Your task to perform on an android device: open app "DuckDuckGo Privacy Browser" (install if not already installed) Image 0: 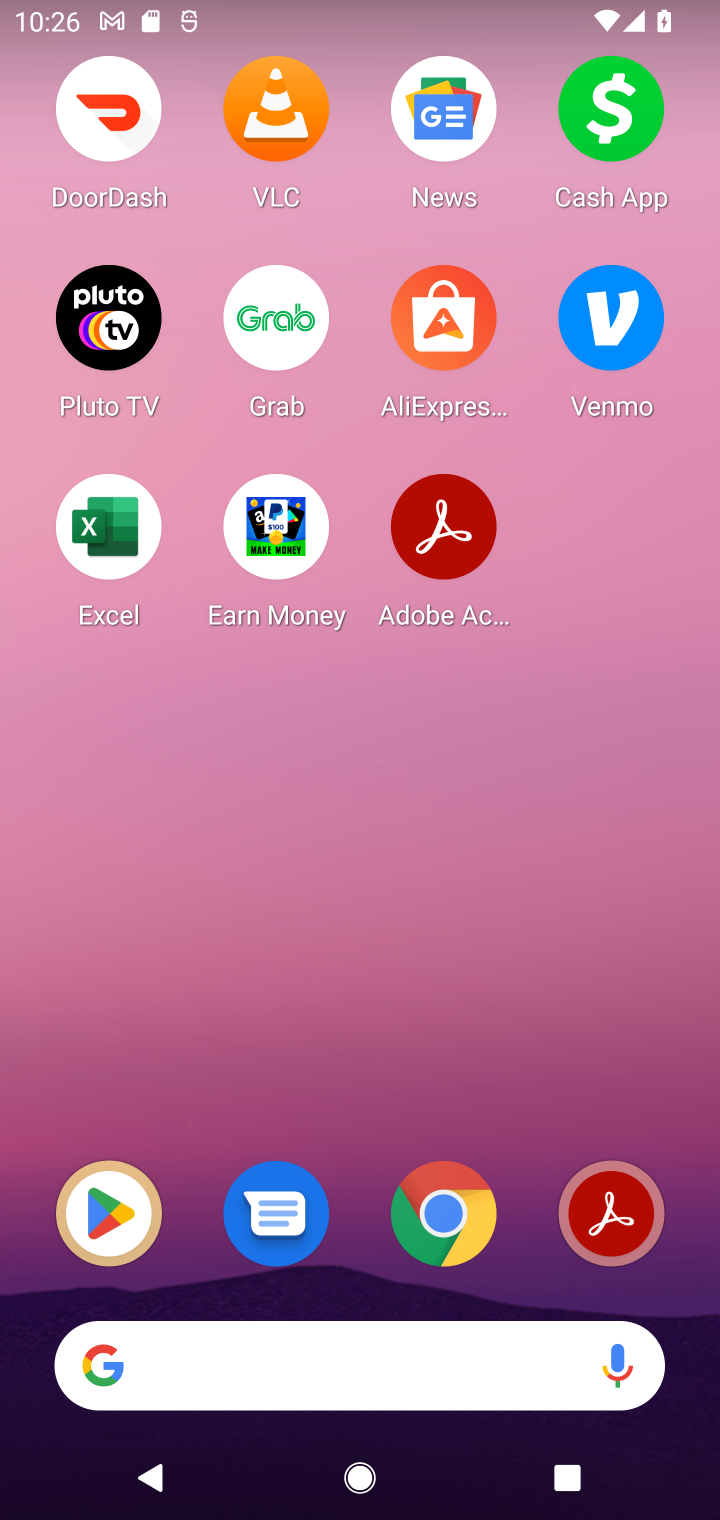
Step 0: click (81, 1222)
Your task to perform on an android device: open app "DuckDuckGo Privacy Browser" (install if not already installed) Image 1: 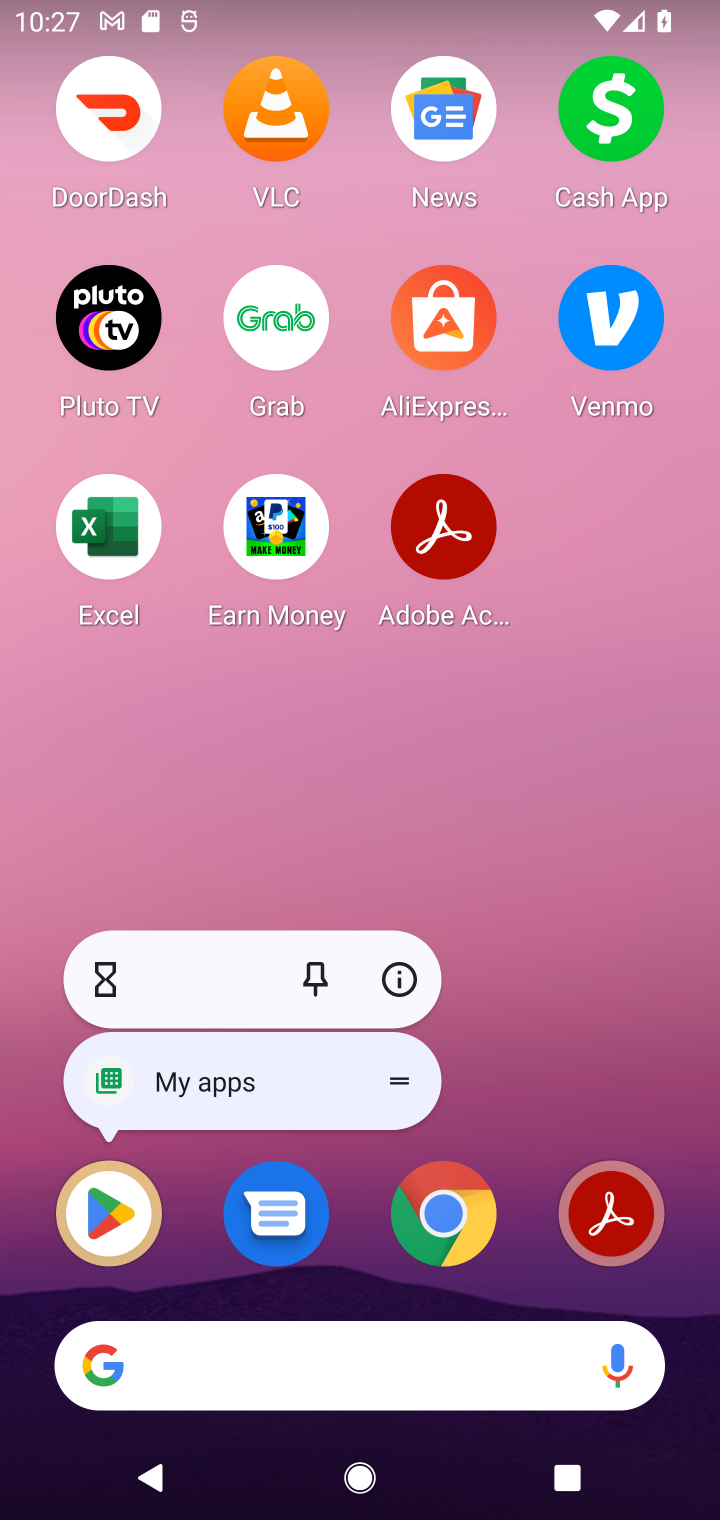
Step 1: click (129, 1195)
Your task to perform on an android device: open app "DuckDuckGo Privacy Browser" (install if not already installed) Image 2: 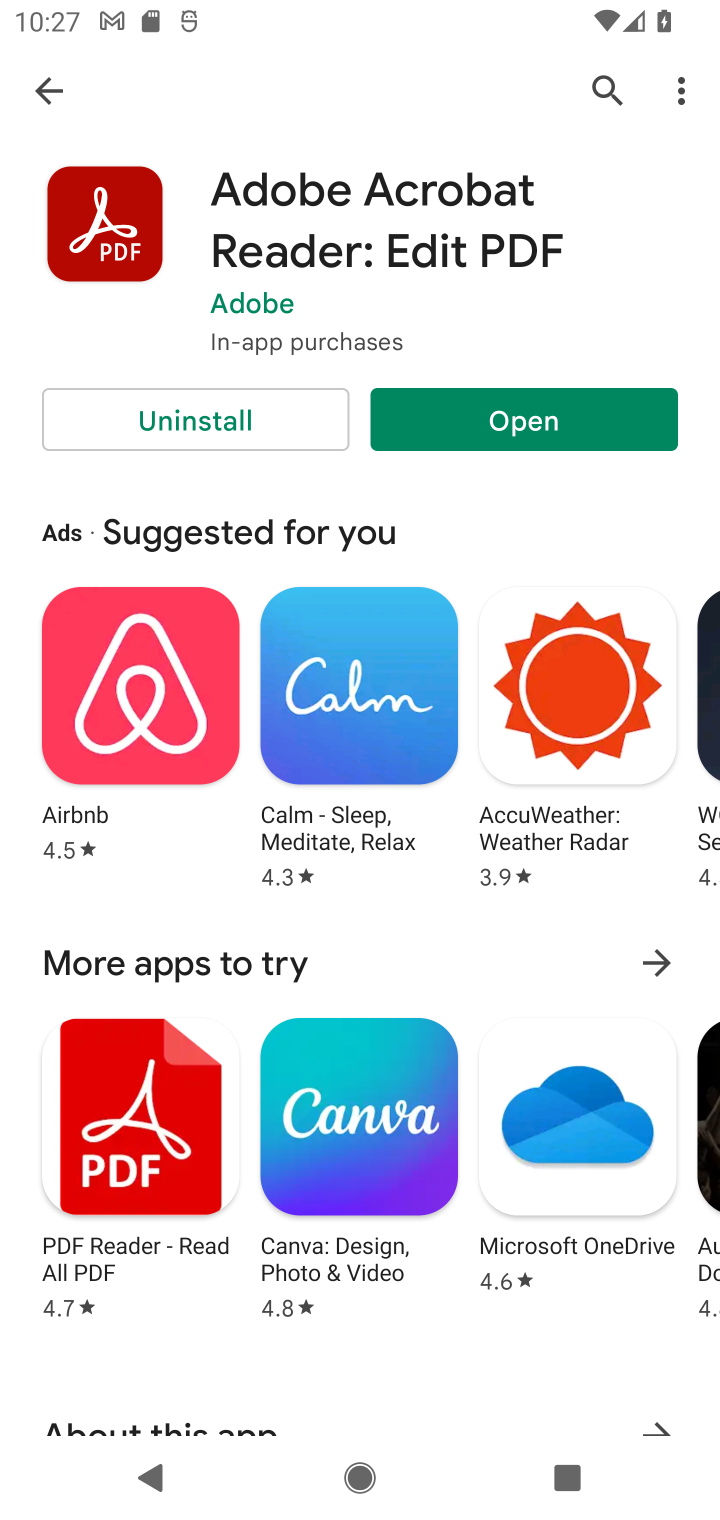
Step 2: click (114, 1211)
Your task to perform on an android device: open app "DuckDuckGo Privacy Browser" (install if not already installed) Image 3: 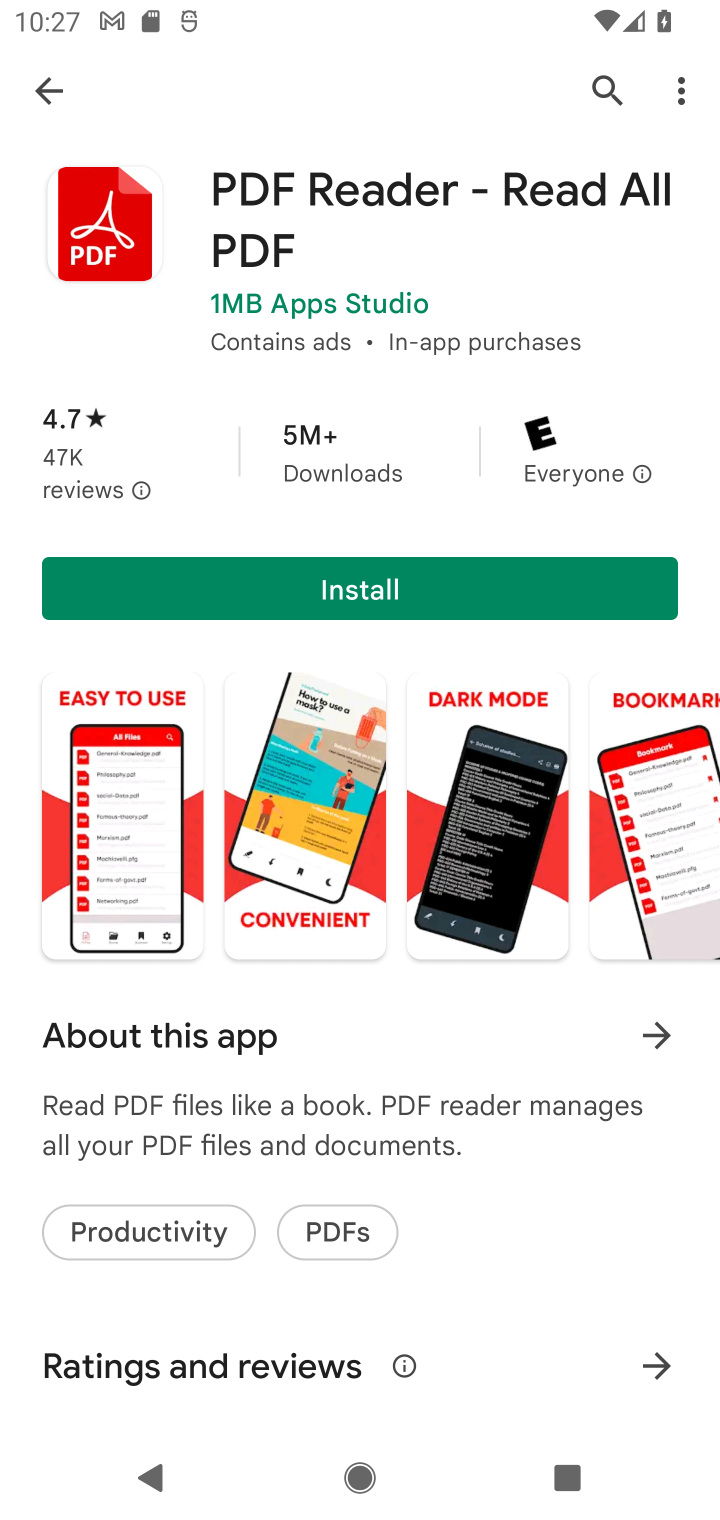
Step 3: click (54, 88)
Your task to perform on an android device: open app "DuckDuckGo Privacy Browser" (install if not already installed) Image 4: 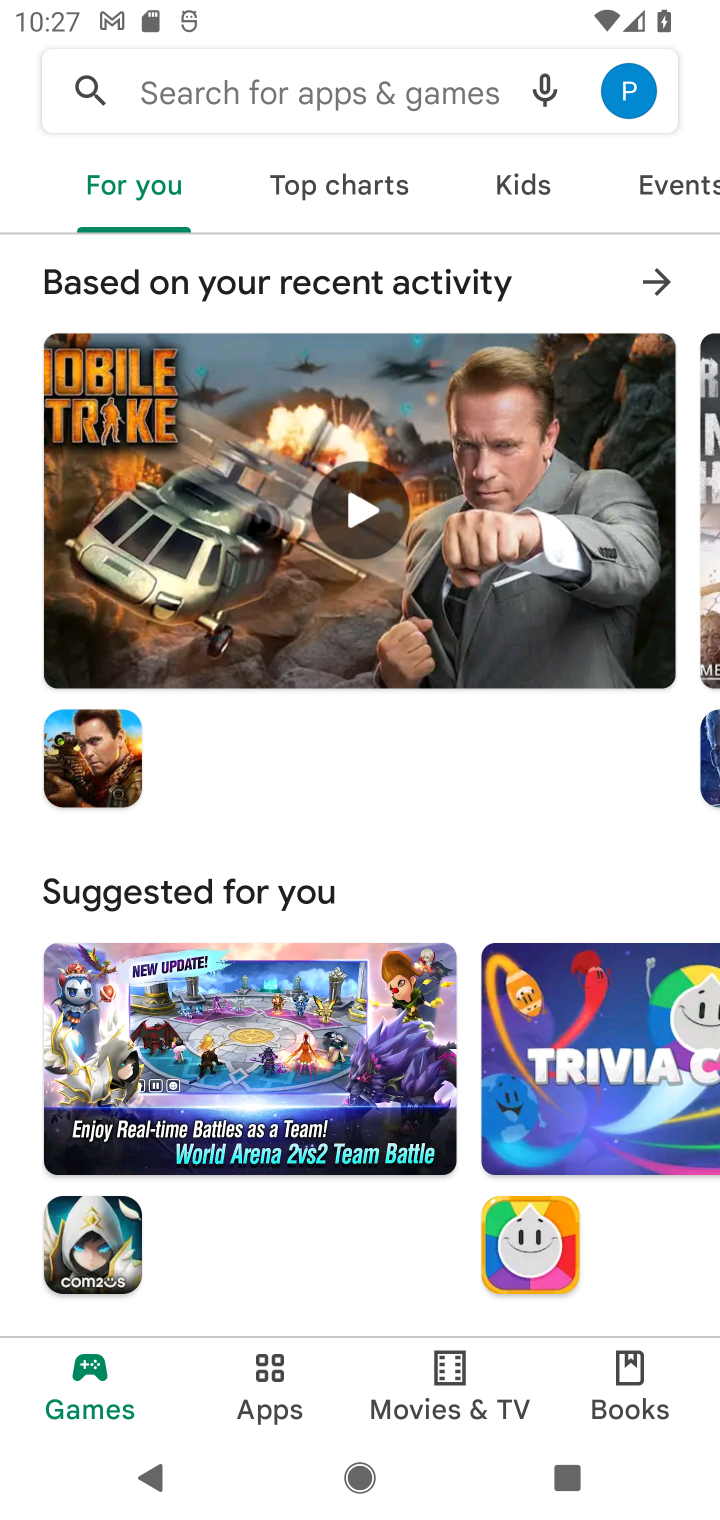
Step 4: click (225, 90)
Your task to perform on an android device: open app "DuckDuckGo Privacy Browser" (install if not already installed) Image 5: 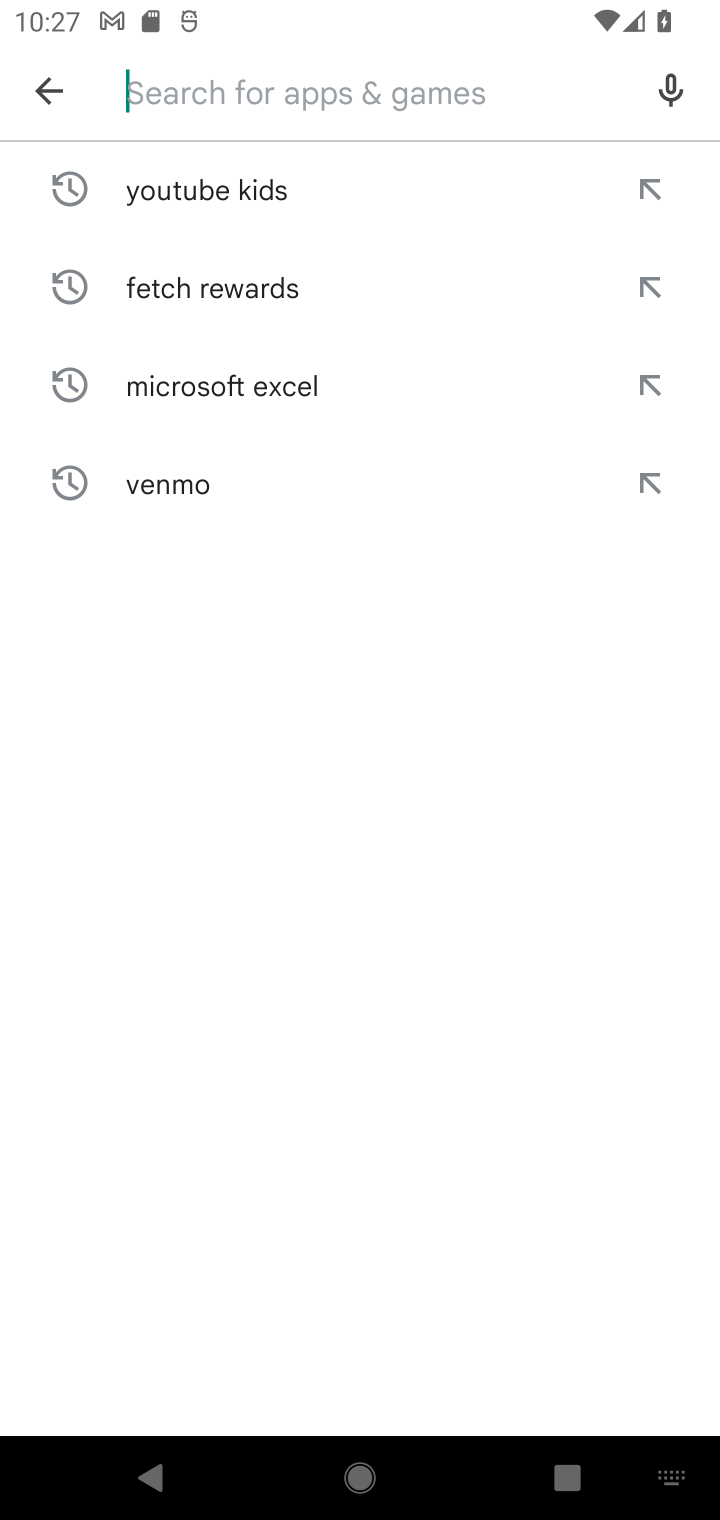
Step 5: type "DuckDuckGo Privacy Browser"
Your task to perform on an android device: open app "DuckDuckGo Privacy Browser" (install if not already installed) Image 6: 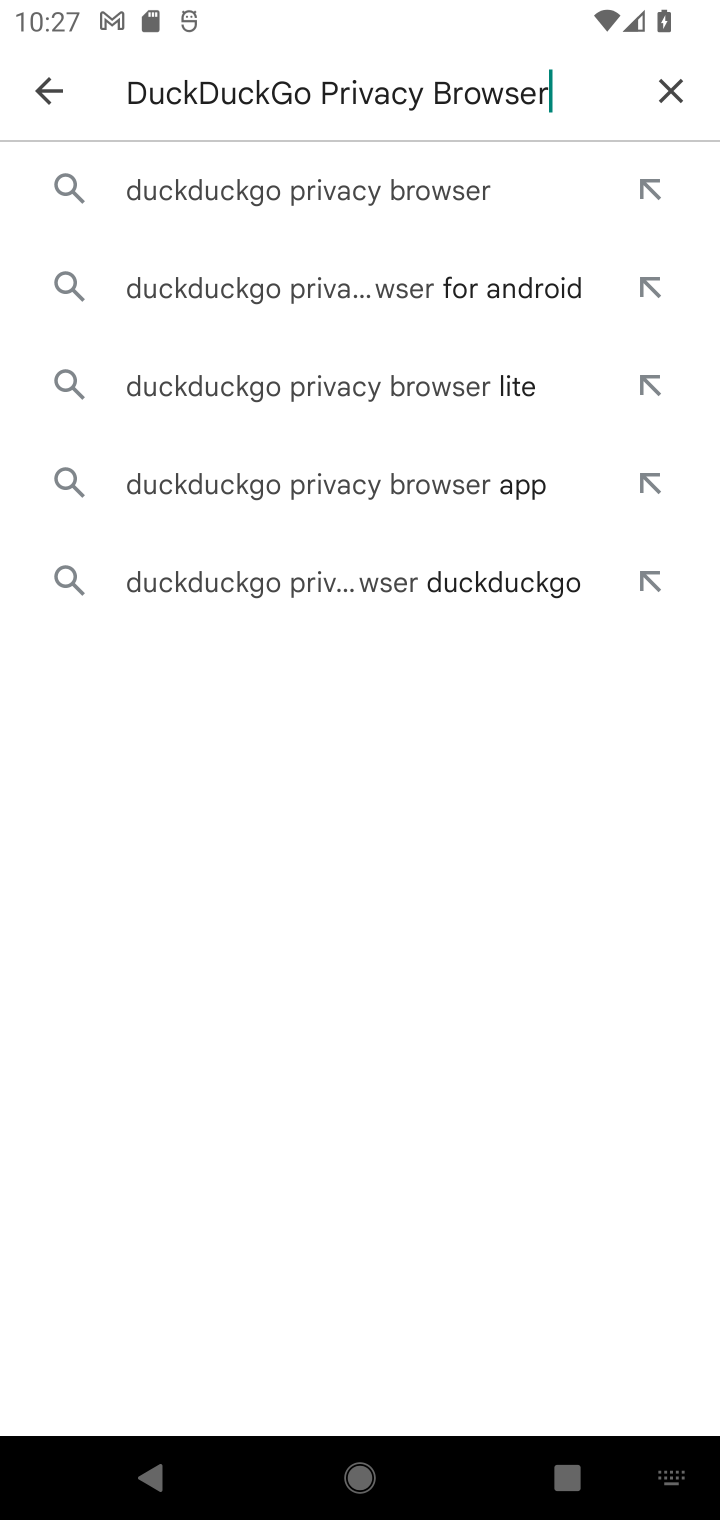
Step 6: click (375, 201)
Your task to perform on an android device: open app "DuckDuckGo Privacy Browser" (install if not already installed) Image 7: 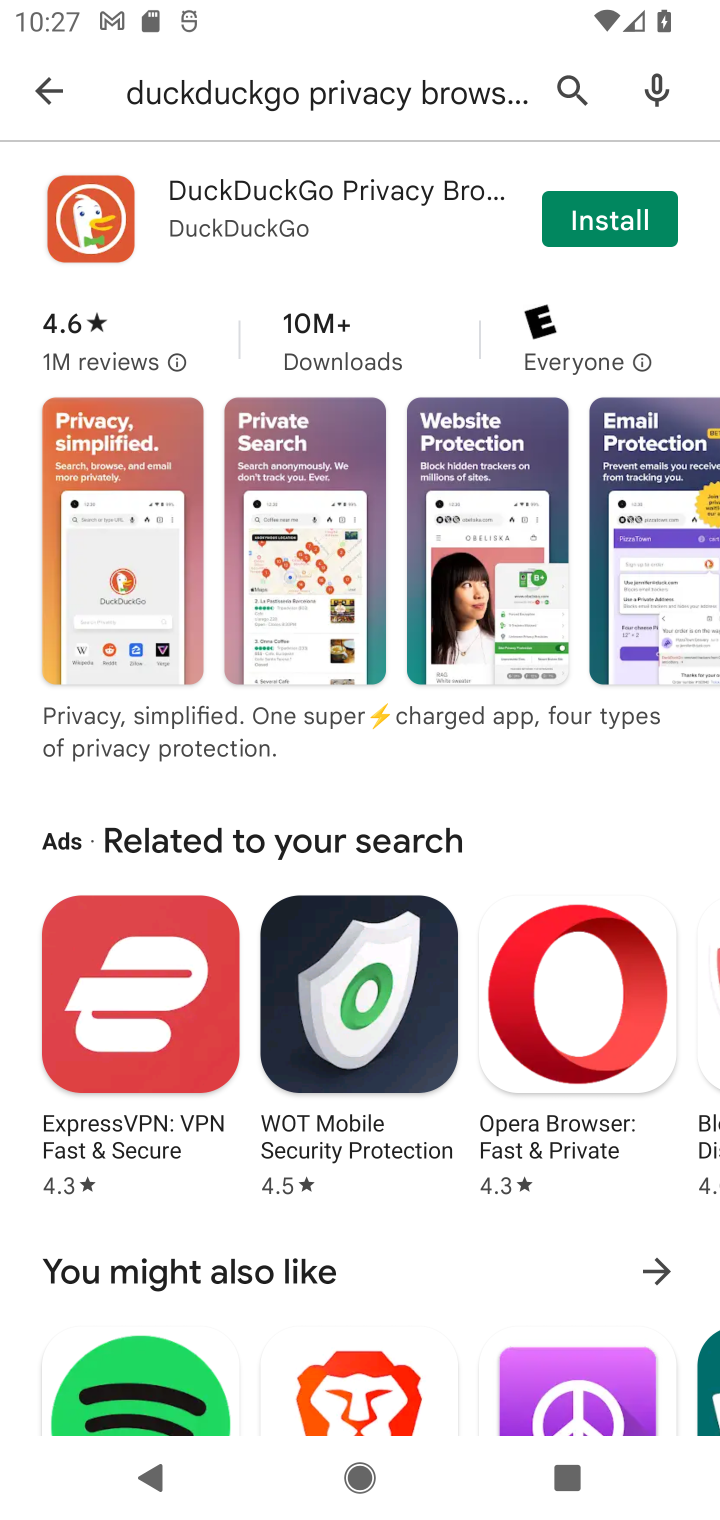
Step 7: click (635, 214)
Your task to perform on an android device: open app "DuckDuckGo Privacy Browser" (install if not already installed) Image 8: 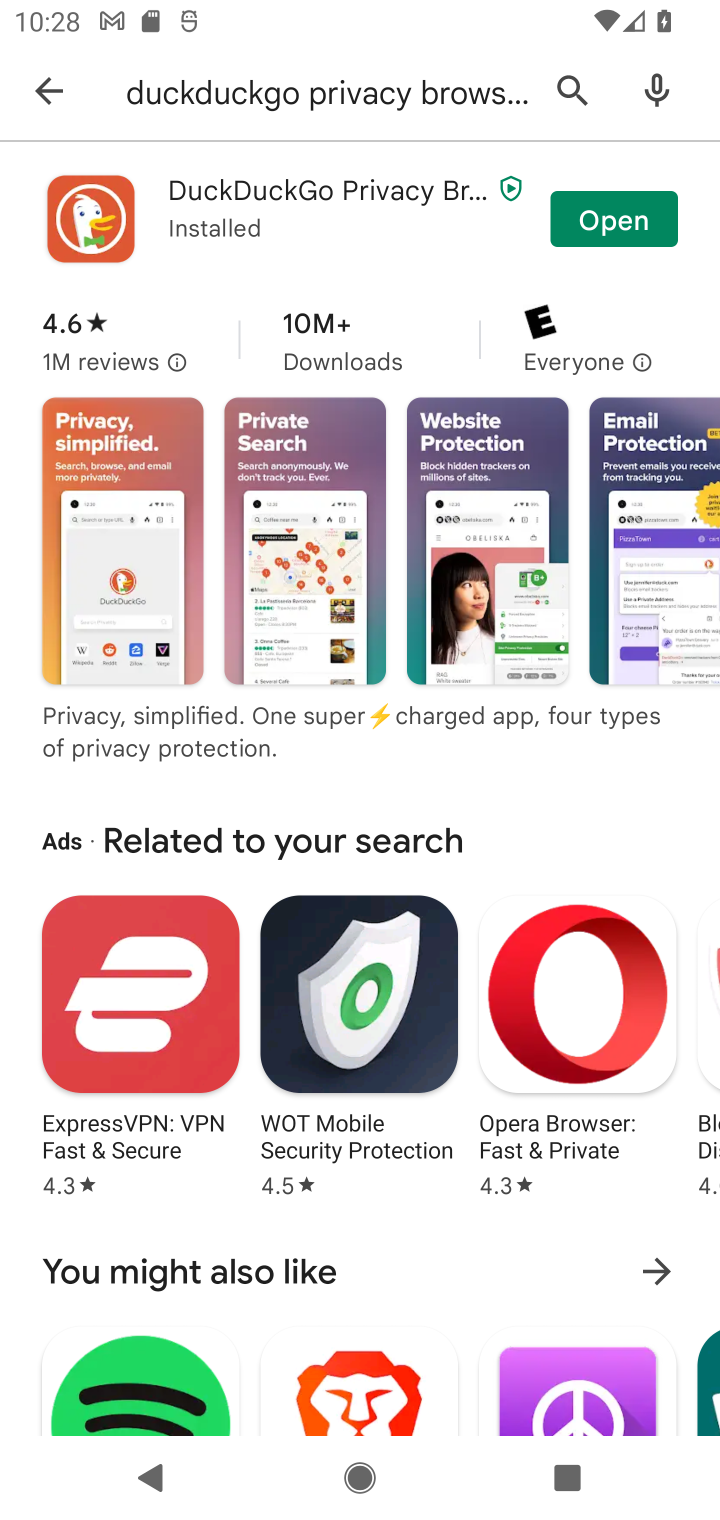
Step 8: click (587, 213)
Your task to perform on an android device: open app "DuckDuckGo Privacy Browser" (install if not already installed) Image 9: 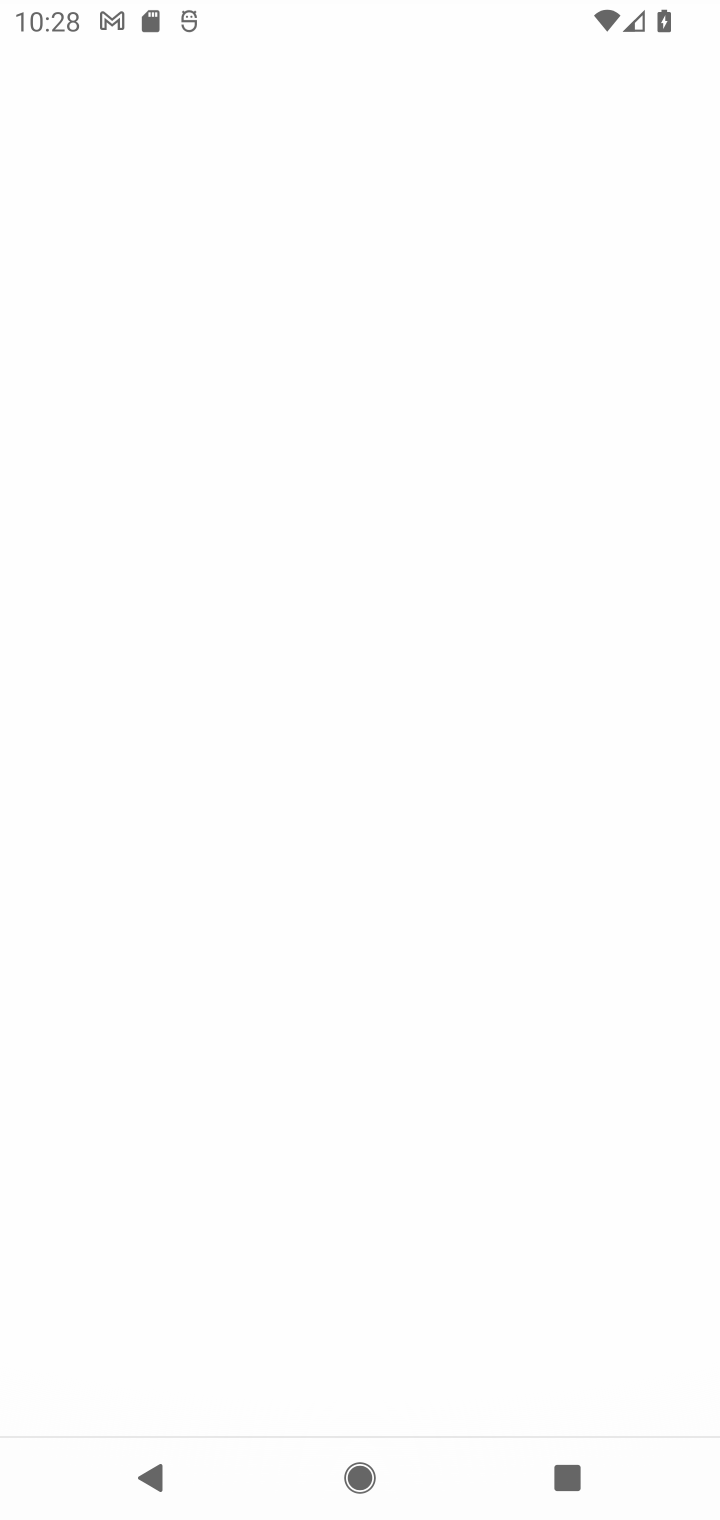
Step 9: task complete